Your task to perform on an android device: Check the news Image 0: 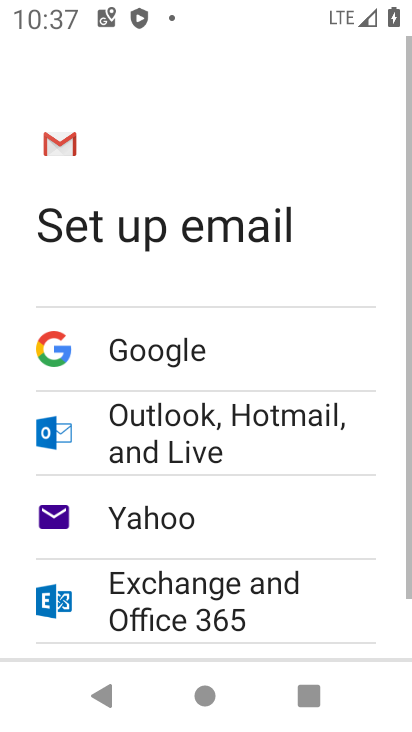
Step 0: press home button
Your task to perform on an android device: Check the news Image 1: 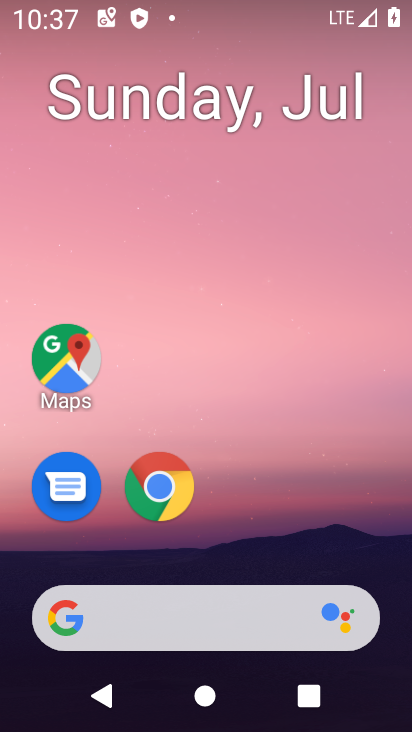
Step 1: task complete